Your task to perform on an android device: toggle wifi Image 0: 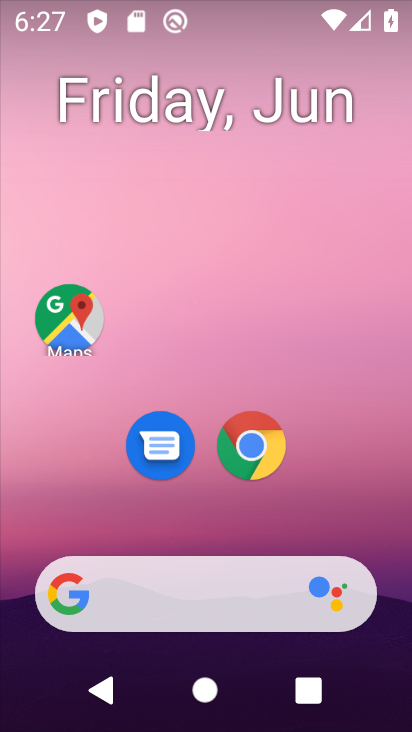
Step 0: drag from (226, 537) to (165, 167)
Your task to perform on an android device: toggle wifi Image 1: 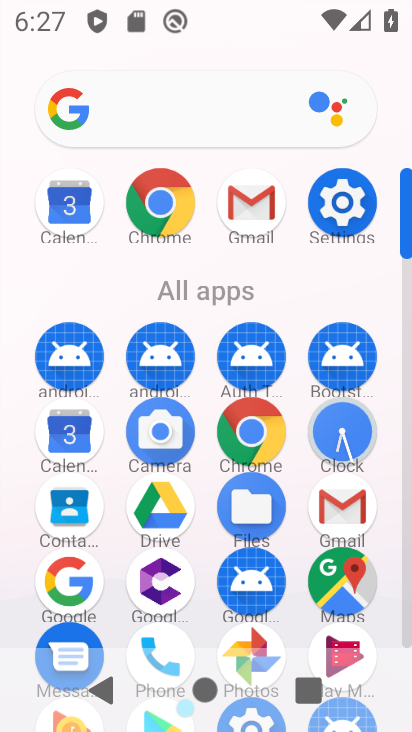
Step 1: click (338, 204)
Your task to perform on an android device: toggle wifi Image 2: 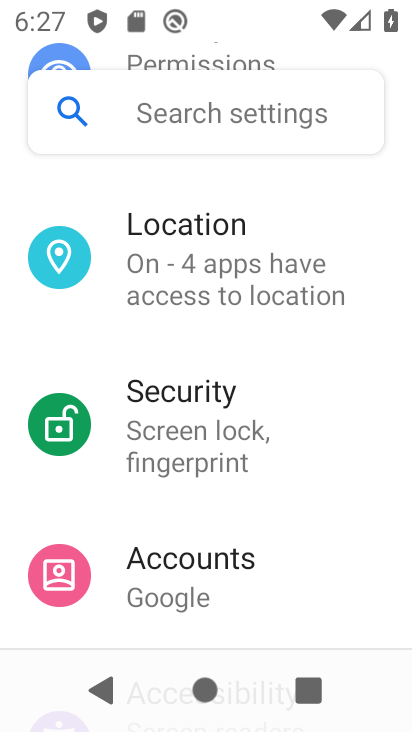
Step 2: drag from (219, 228) to (194, 428)
Your task to perform on an android device: toggle wifi Image 3: 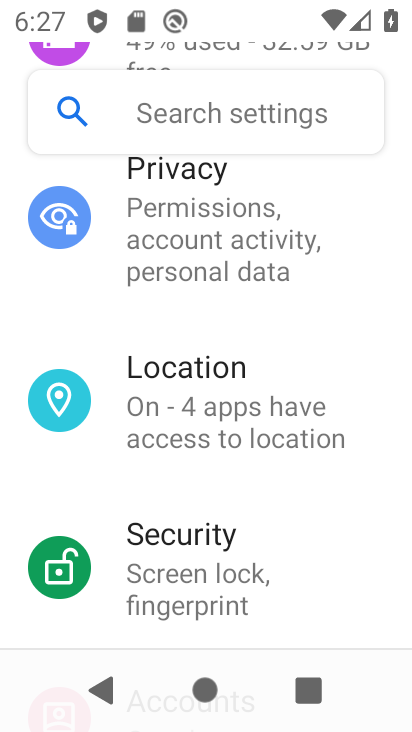
Step 3: drag from (195, 260) to (192, 478)
Your task to perform on an android device: toggle wifi Image 4: 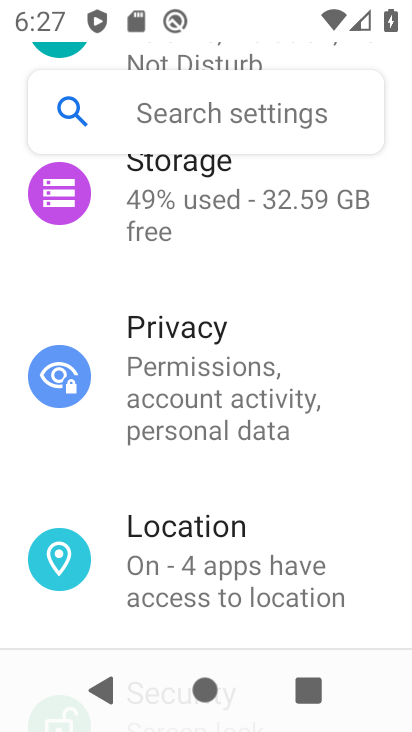
Step 4: drag from (205, 421) to (205, 594)
Your task to perform on an android device: toggle wifi Image 5: 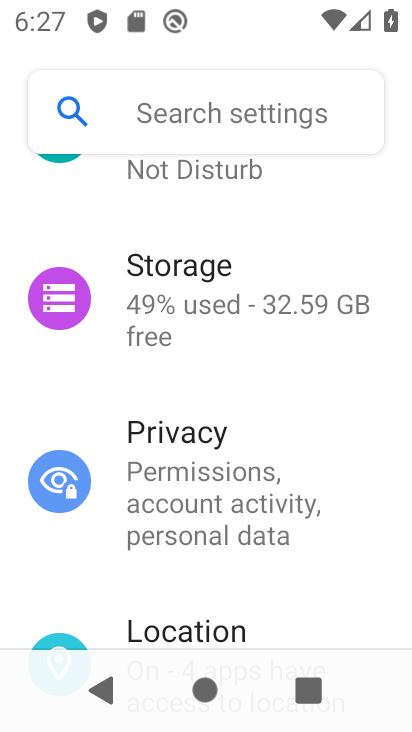
Step 5: drag from (228, 396) to (243, 505)
Your task to perform on an android device: toggle wifi Image 6: 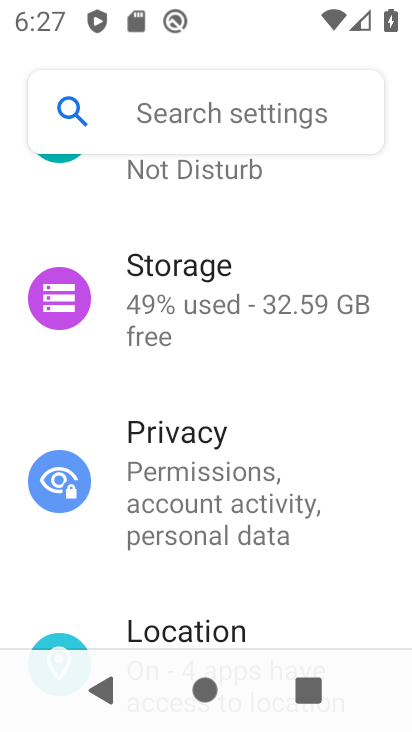
Step 6: drag from (208, 298) to (190, 525)
Your task to perform on an android device: toggle wifi Image 7: 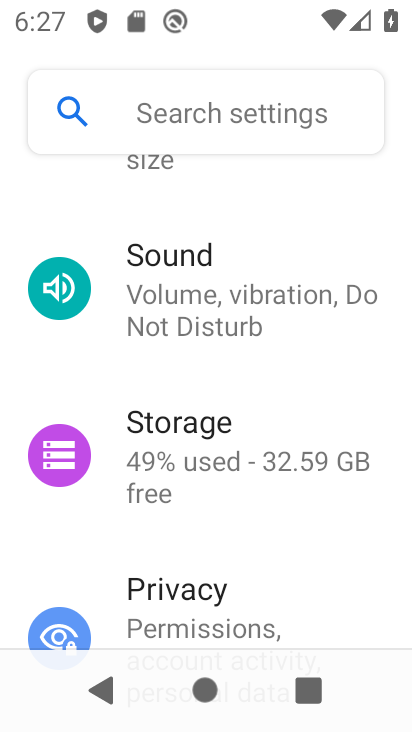
Step 7: drag from (228, 446) to (229, 563)
Your task to perform on an android device: toggle wifi Image 8: 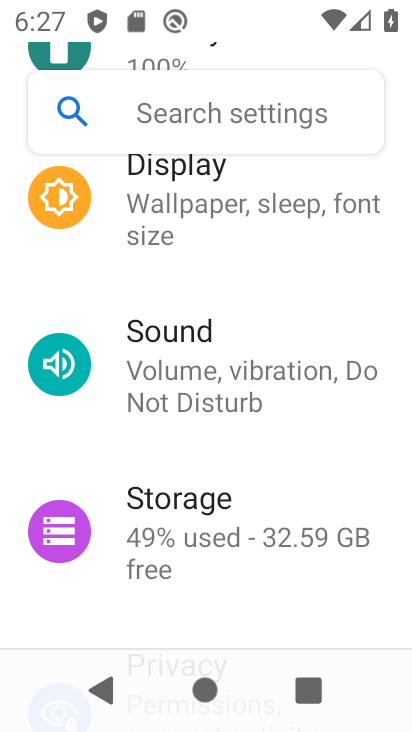
Step 8: drag from (225, 309) to (232, 519)
Your task to perform on an android device: toggle wifi Image 9: 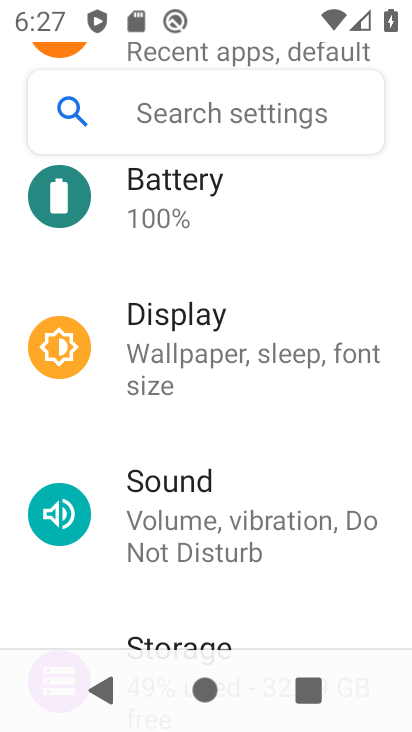
Step 9: drag from (256, 287) to (267, 515)
Your task to perform on an android device: toggle wifi Image 10: 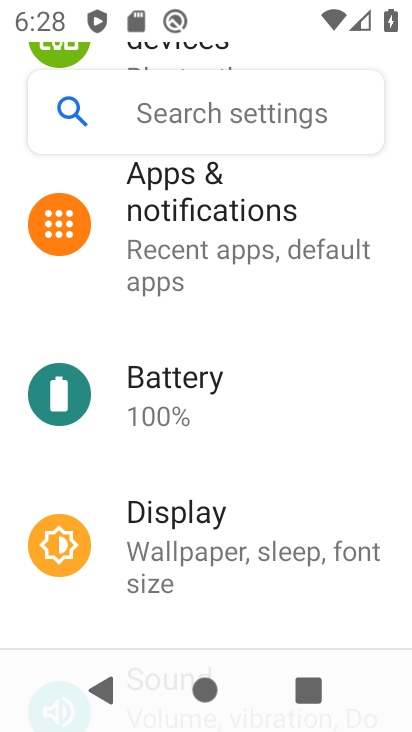
Step 10: drag from (249, 261) to (250, 527)
Your task to perform on an android device: toggle wifi Image 11: 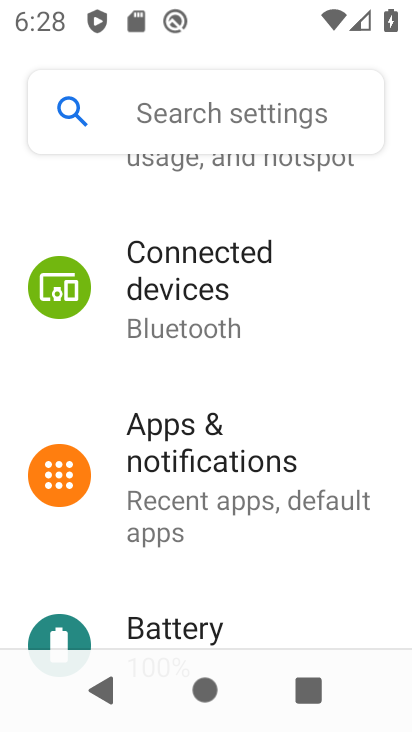
Step 11: drag from (216, 262) to (224, 518)
Your task to perform on an android device: toggle wifi Image 12: 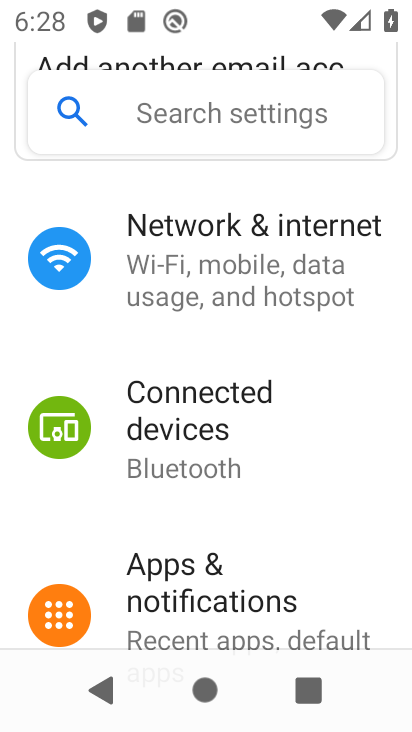
Step 12: click (211, 282)
Your task to perform on an android device: toggle wifi Image 13: 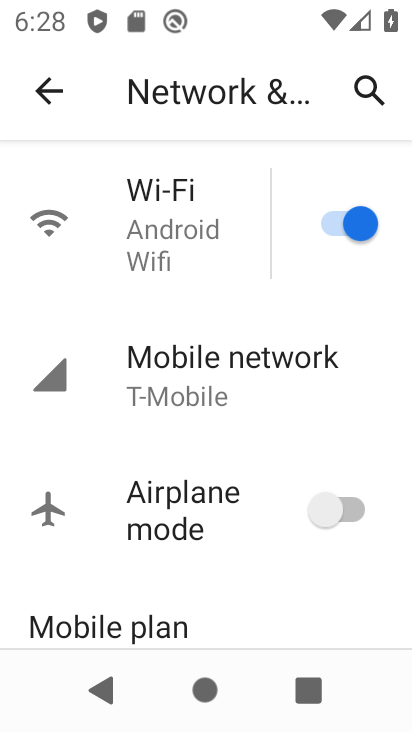
Step 13: click (323, 225)
Your task to perform on an android device: toggle wifi Image 14: 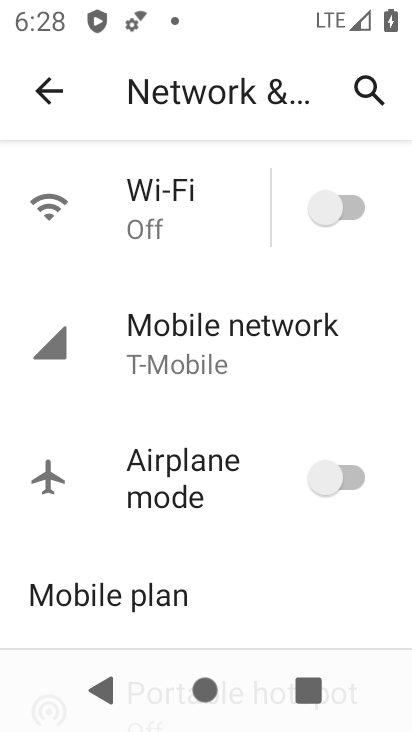
Step 14: task complete